Your task to perform on an android device: Open notification settings Image 0: 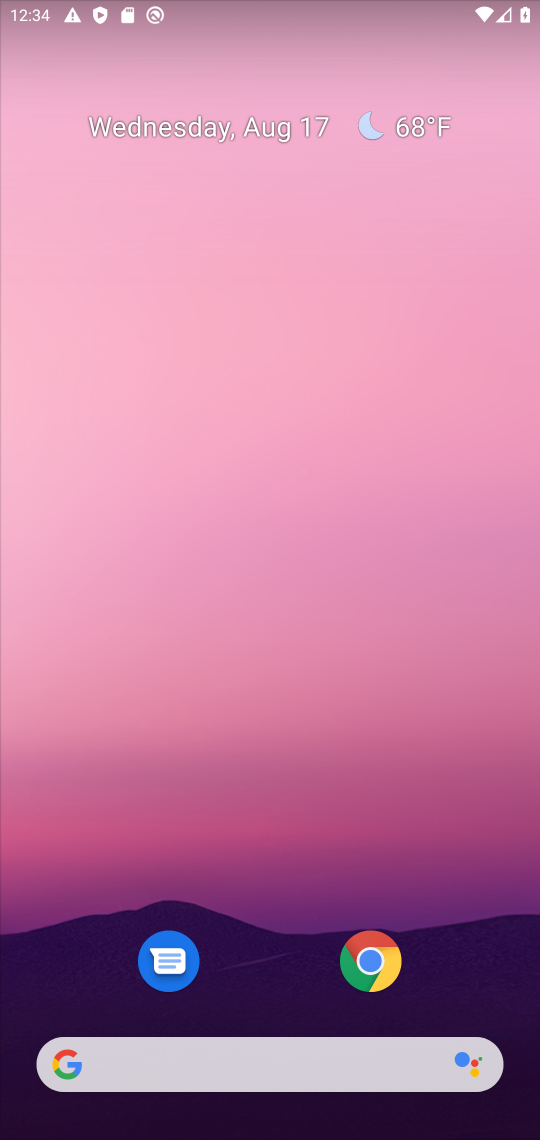
Step 0: drag from (371, 911) to (376, 245)
Your task to perform on an android device: Open notification settings Image 1: 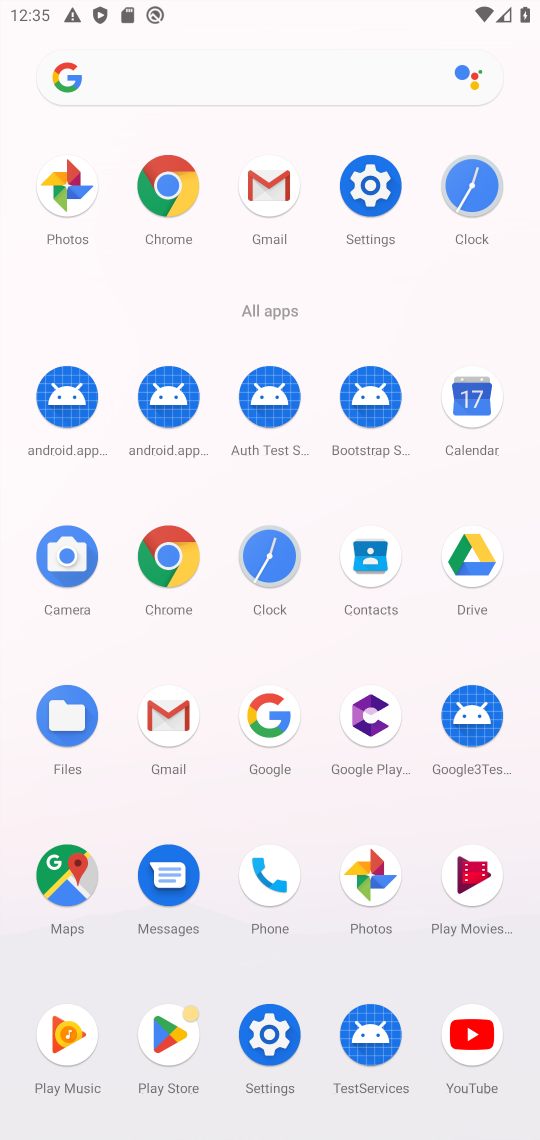
Step 1: click (358, 210)
Your task to perform on an android device: Open notification settings Image 2: 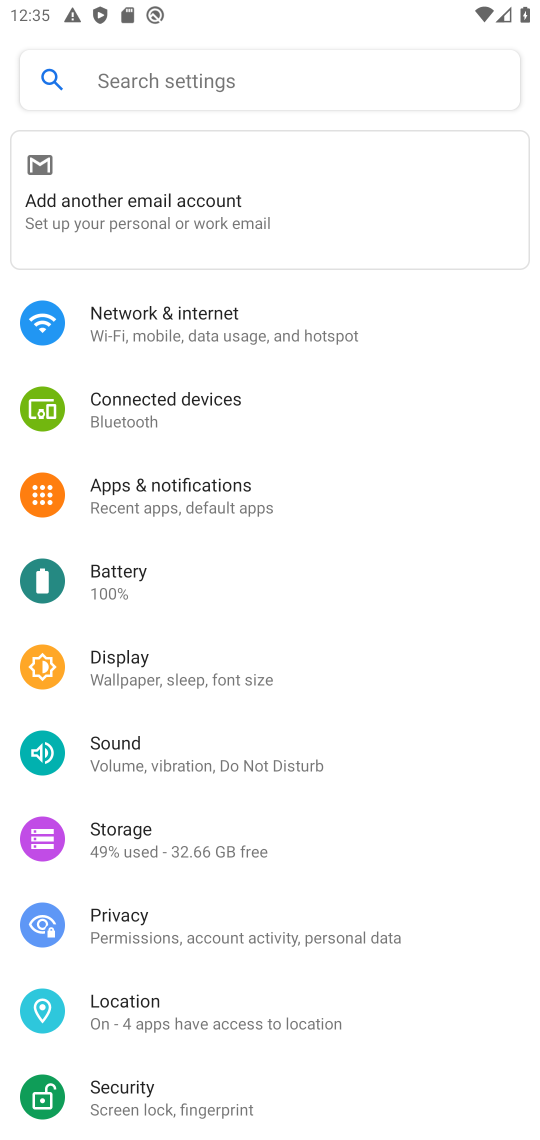
Step 2: click (215, 517)
Your task to perform on an android device: Open notification settings Image 3: 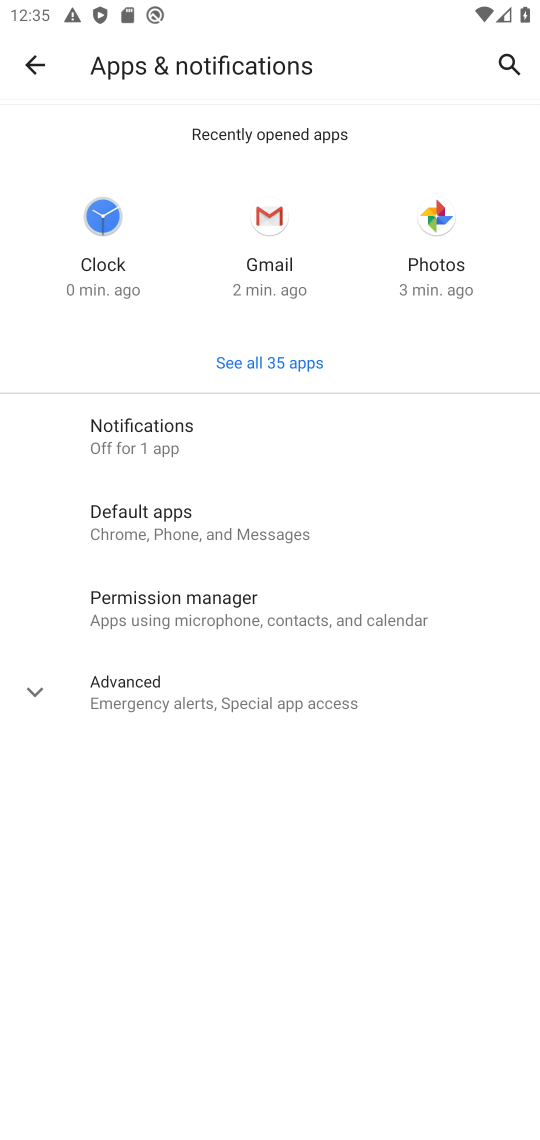
Step 3: click (164, 447)
Your task to perform on an android device: Open notification settings Image 4: 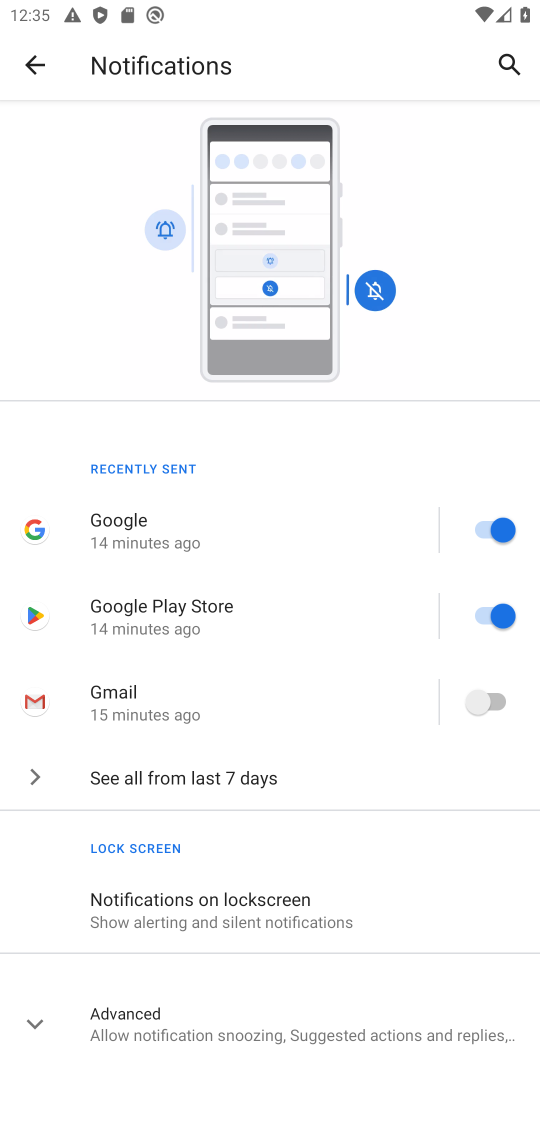
Step 4: task complete